Your task to perform on an android device: Open settings Image 0: 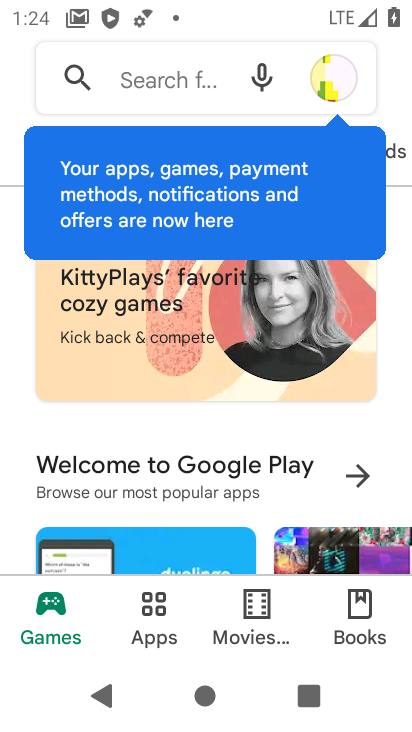
Step 0: press home button
Your task to perform on an android device: Open settings Image 1: 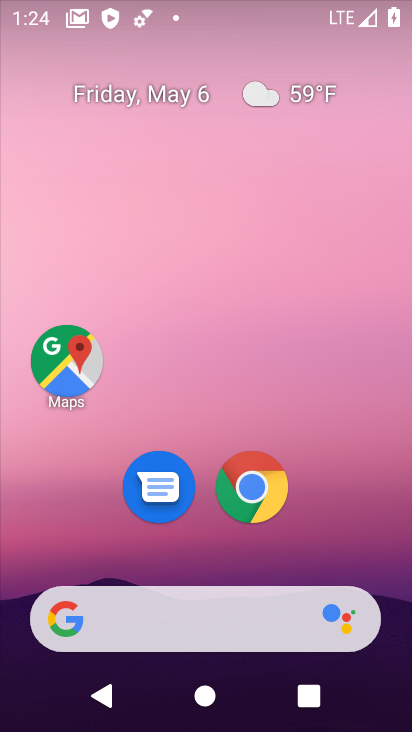
Step 1: drag from (221, 501) to (307, 115)
Your task to perform on an android device: Open settings Image 2: 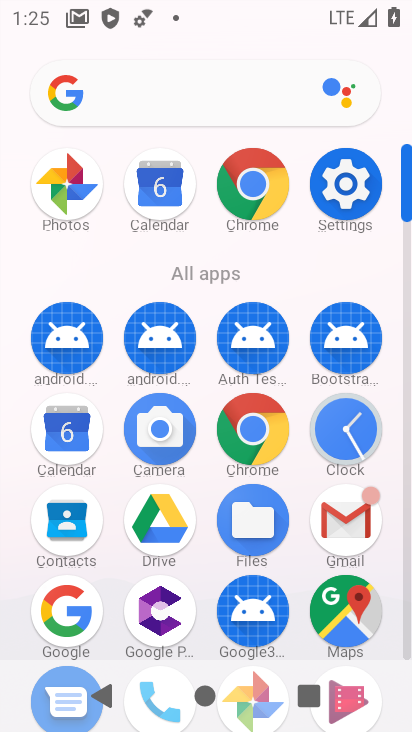
Step 2: click (362, 188)
Your task to perform on an android device: Open settings Image 3: 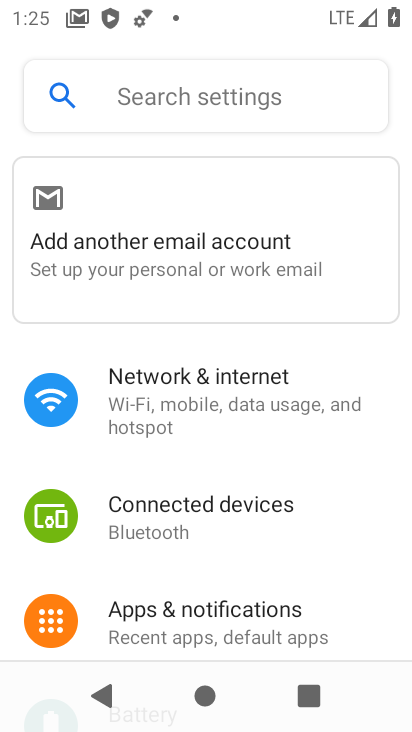
Step 3: task complete